Your task to perform on an android device: install app "Google Chat" Image 0: 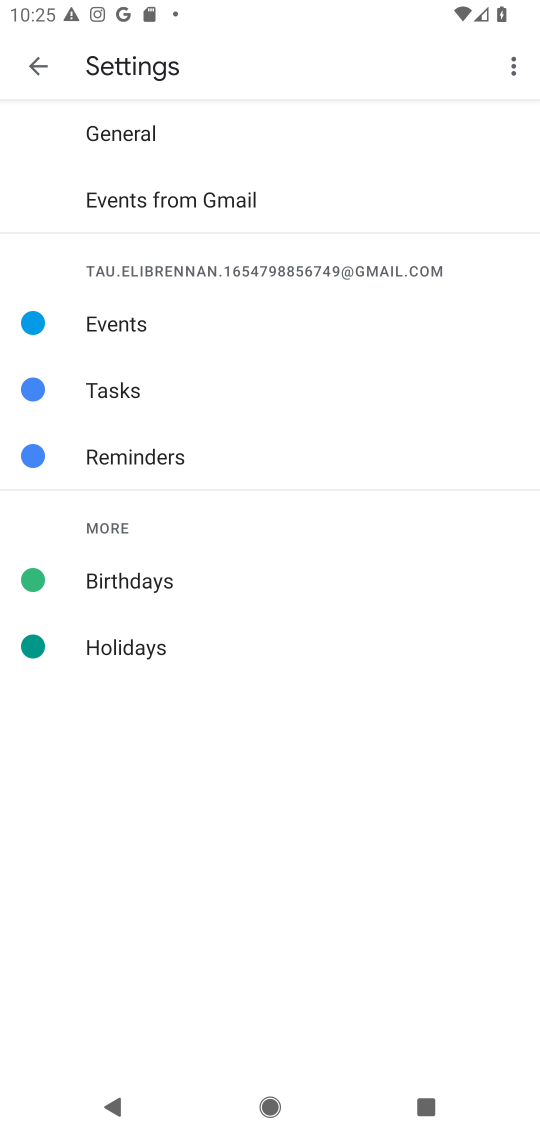
Step 0: press home button
Your task to perform on an android device: install app "Google Chat" Image 1: 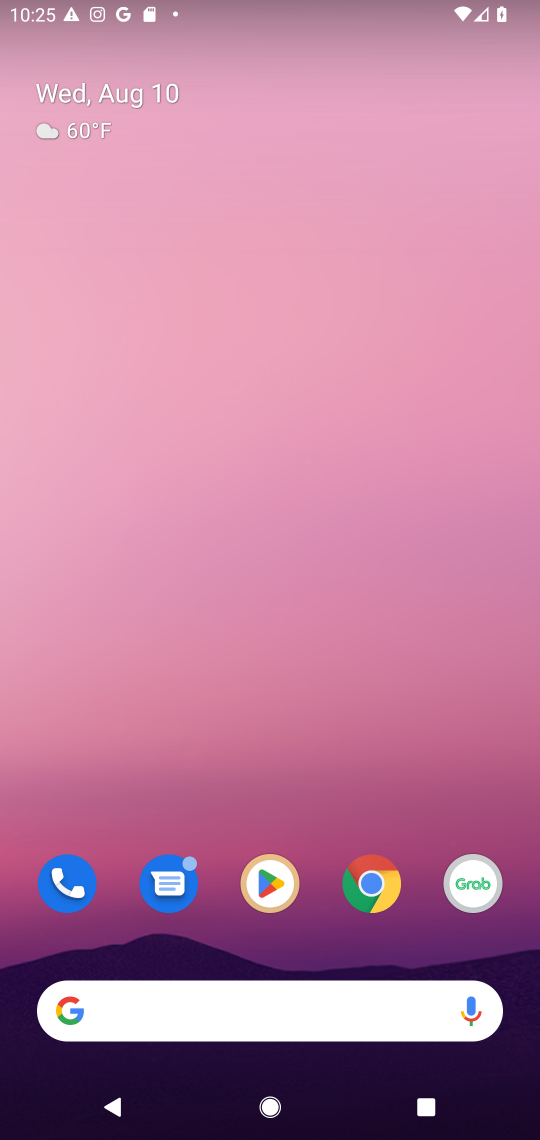
Step 1: drag from (404, 664) to (376, 61)
Your task to perform on an android device: install app "Google Chat" Image 2: 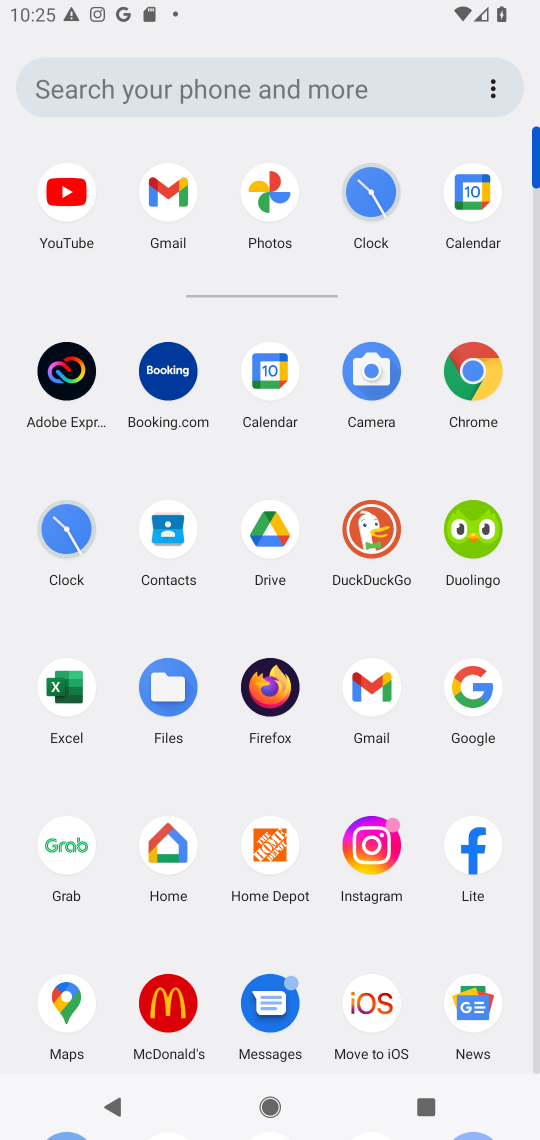
Step 2: drag from (503, 940) to (519, 493)
Your task to perform on an android device: install app "Google Chat" Image 3: 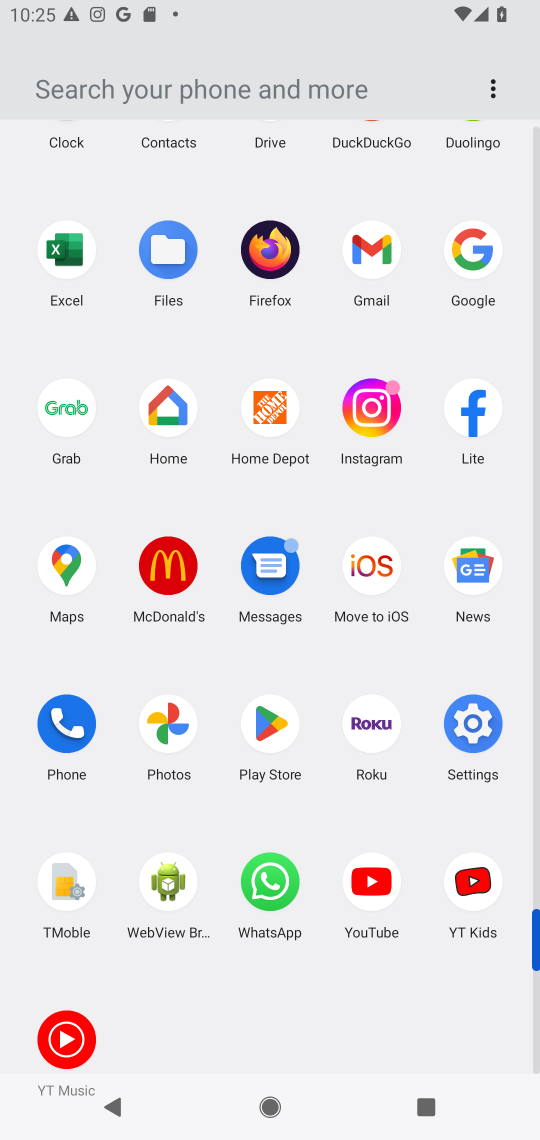
Step 3: click (263, 731)
Your task to perform on an android device: install app "Google Chat" Image 4: 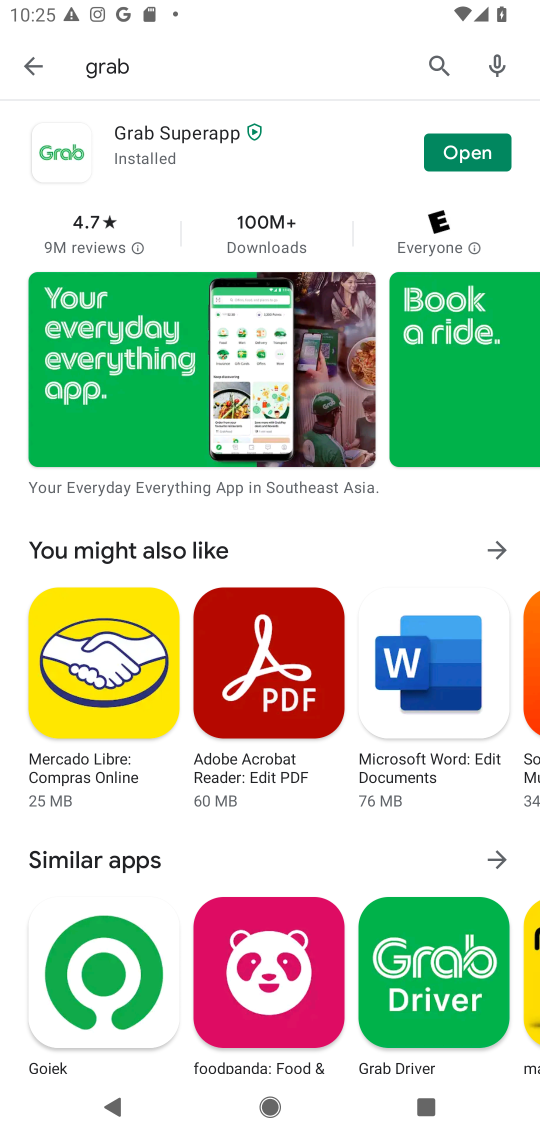
Step 4: click (435, 62)
Your task to perform on an android device: install app "Google Chat" Image 5: 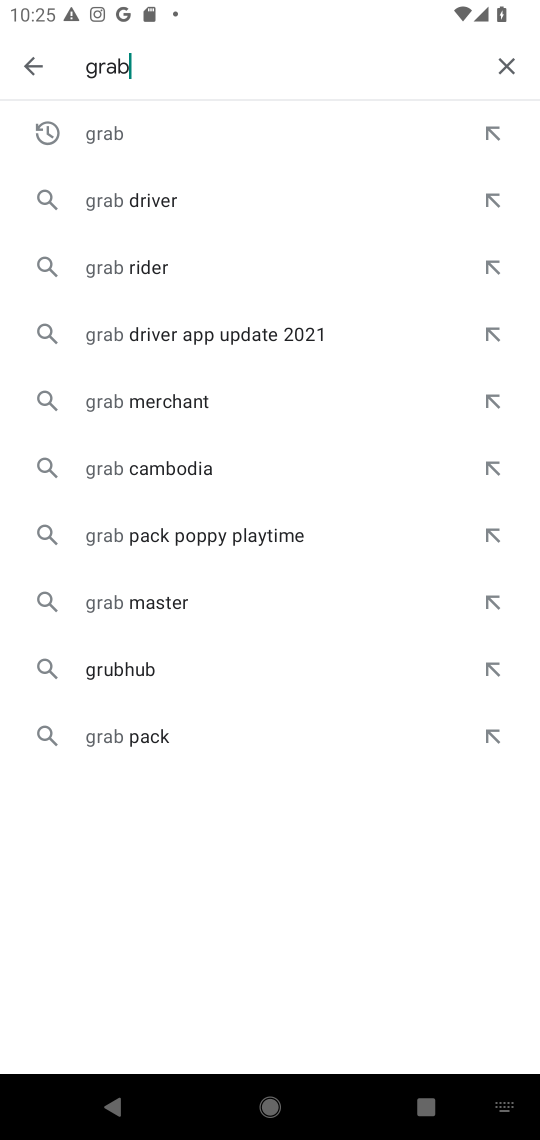
Step 5: click (503, 69)
Your task to perform on an android device: install app "Google Chat" Image 6: 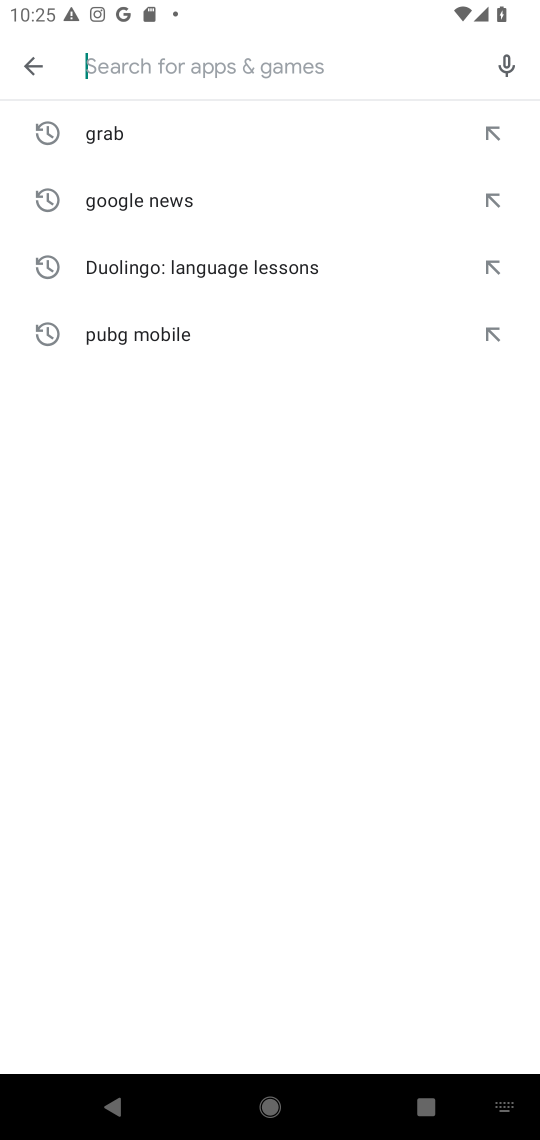
Step 6: press enter
Your task to perform on an android device: install app "Google Chat" Image 7: 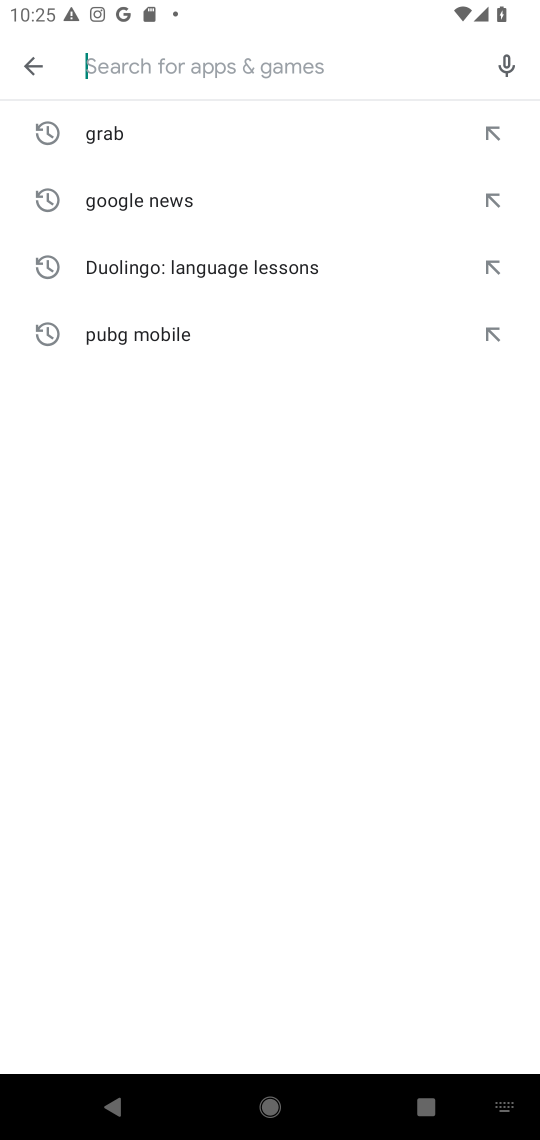
Step 7: type "google chat"
Your task to perform on an android device: install app "Google Chat" Image 8: 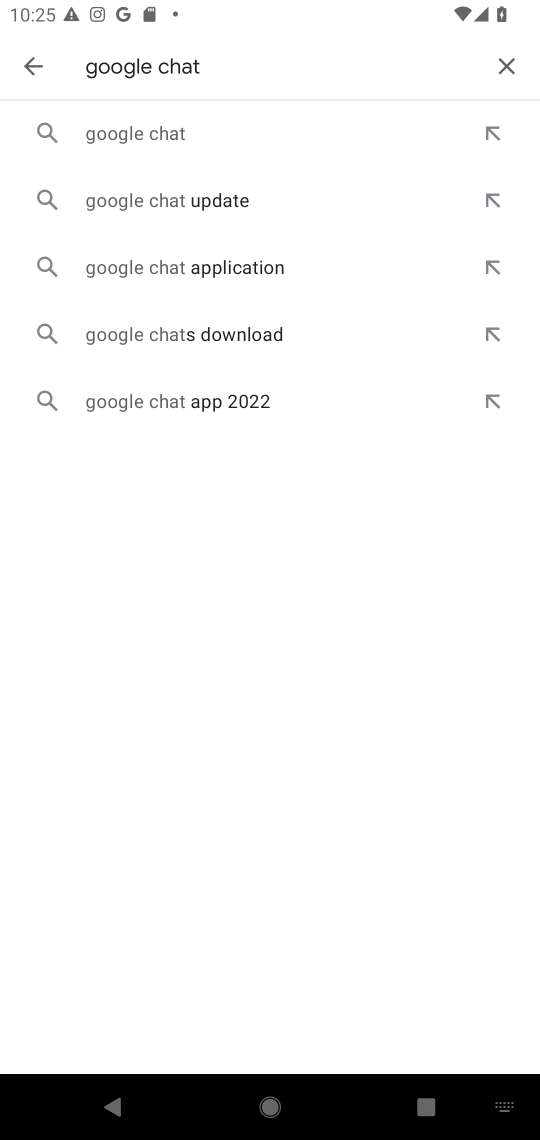
Step 8: click (209, 121)
Your task to perform on an android device: install app "Google Chat" Image 9: 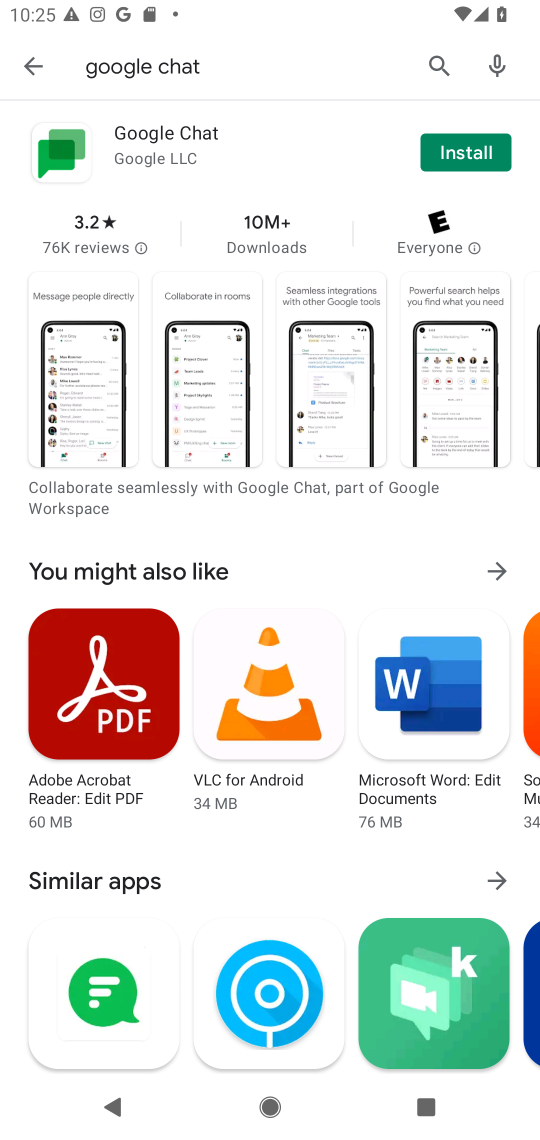
Step 9: click (478, 155)
Your task to perform on an android device: install app "Google Chat" Image 10: 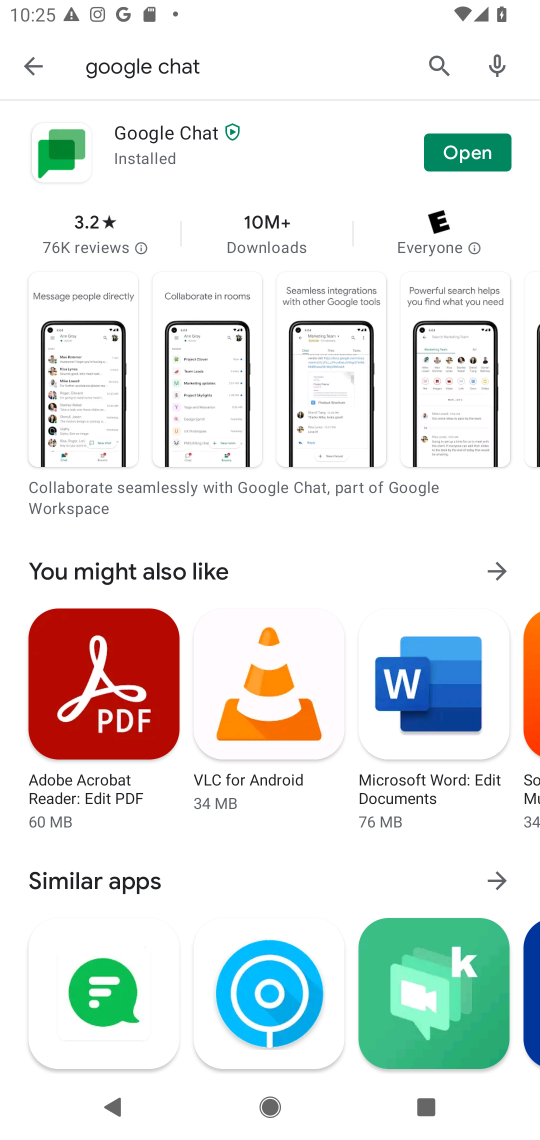
Step 10: task complete